Your task to perform on an android device: Open settings on Google Maps Image 0: 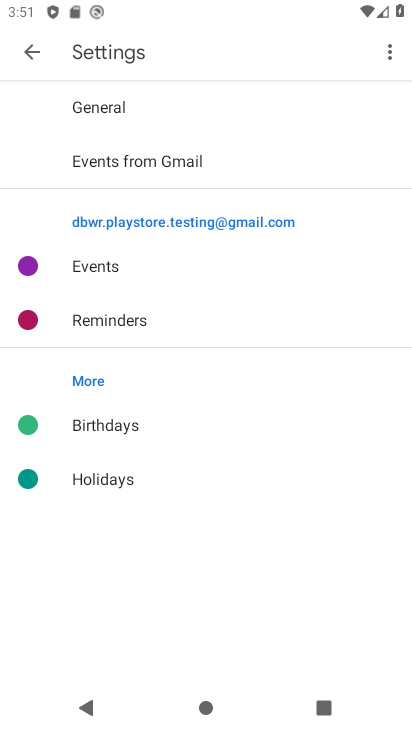
Step 0: press home button
Your task to perform on an android device: Open settings on Google Maps Image 1: 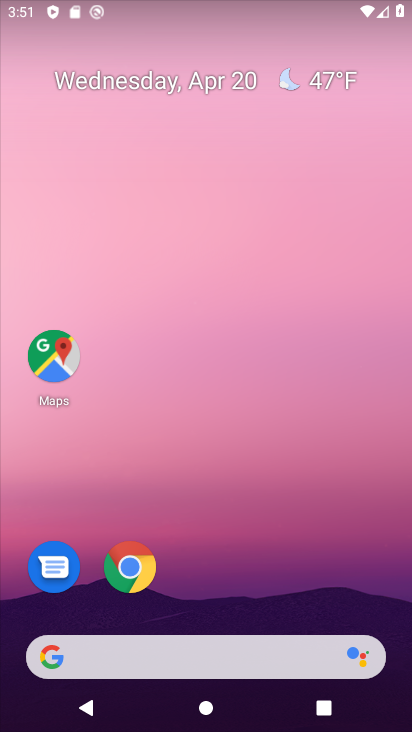
Step 1: click (61, 369)
Your task to perform on an android device: Open settings on Google Maps Image 2: 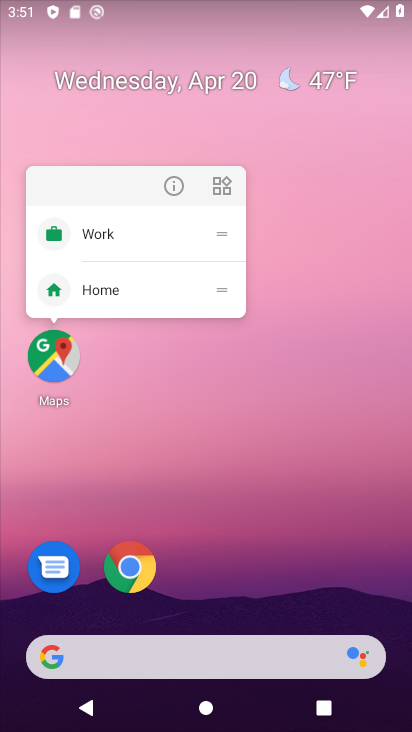
Step 2: click (67, 356)
Your task to perform on an android device: Open settings on Google Maps Image 3: 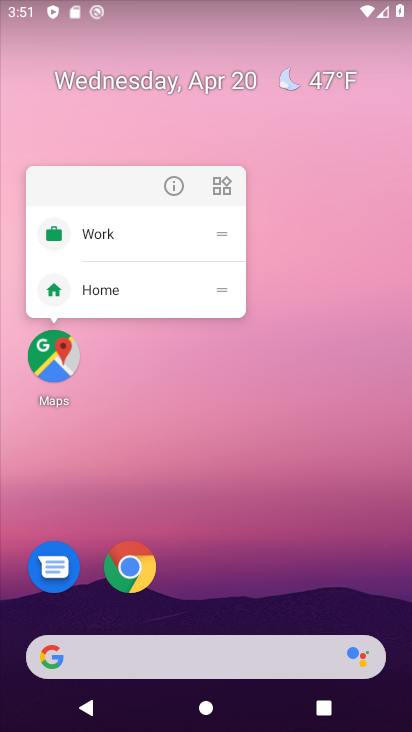
Step 3: click (112, 301)
Your task to perform on an android device: Open settings on Google Maps Image 4: 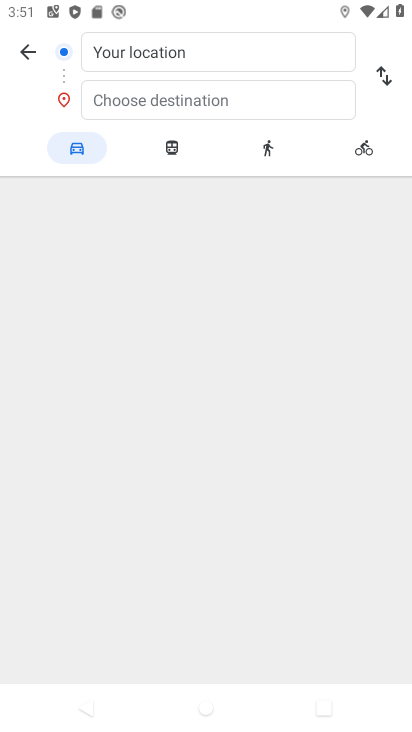
Step 4: click (19, 54)
Your task to perform on an android device: Open settings on Google Maps Image 5: 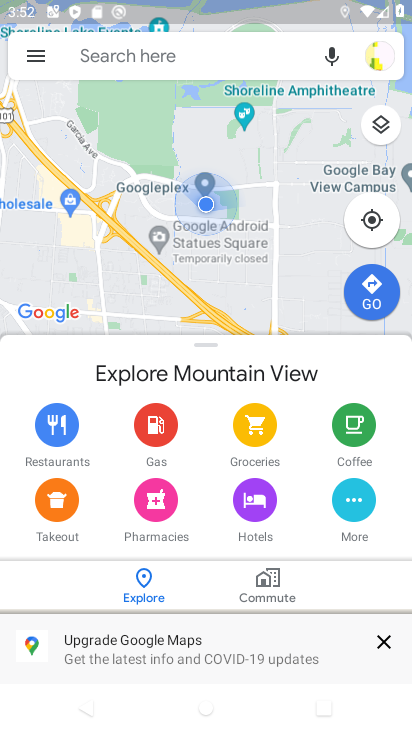
Step 5: click (35, 45)
Your task to perform on an android device: Open settings on Google Maps Image 6: 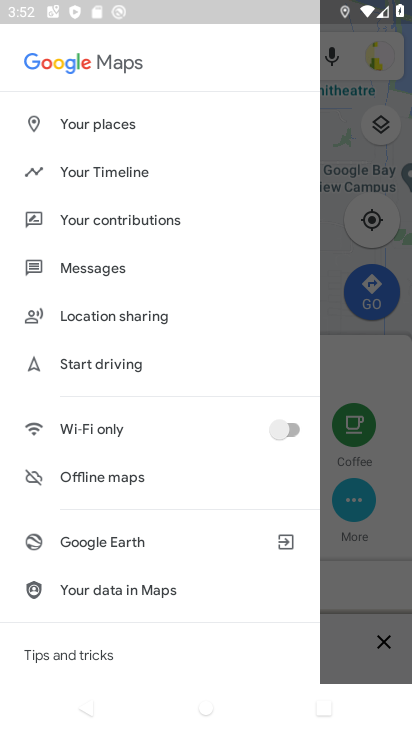
Step 6: drag from (74, 541) to (127, 182)
Your task to perform on an android device: Open settings on Google Maps Image 7: 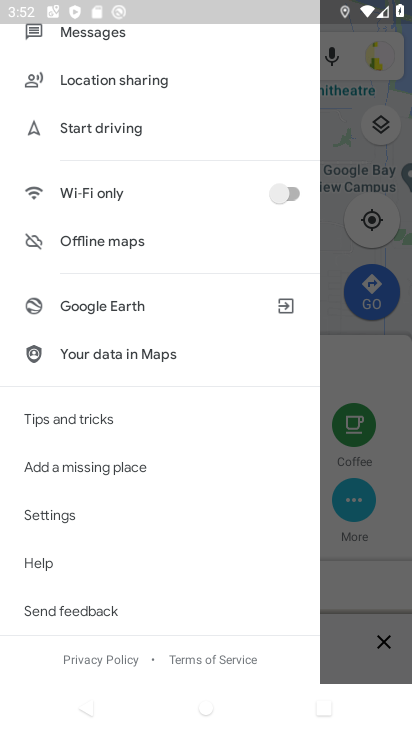
Step 7: click (82, 516)
Your task to perform on an android device: Open settings on Google Maps Image 8: 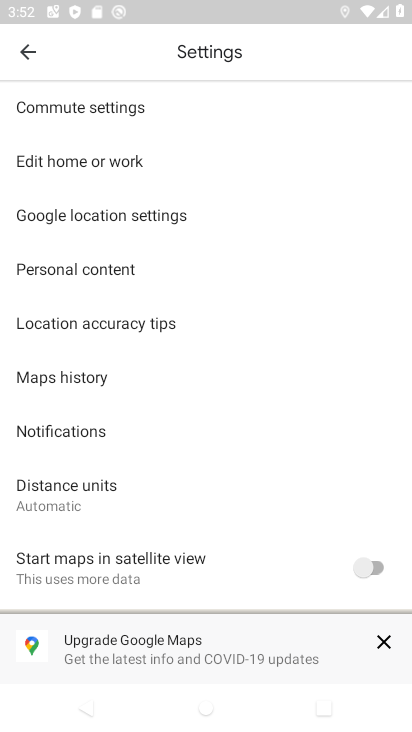
Step 8: task complete